Your task to perform on an android device: read, delete, or share a saved page in the chrome app Image 0: 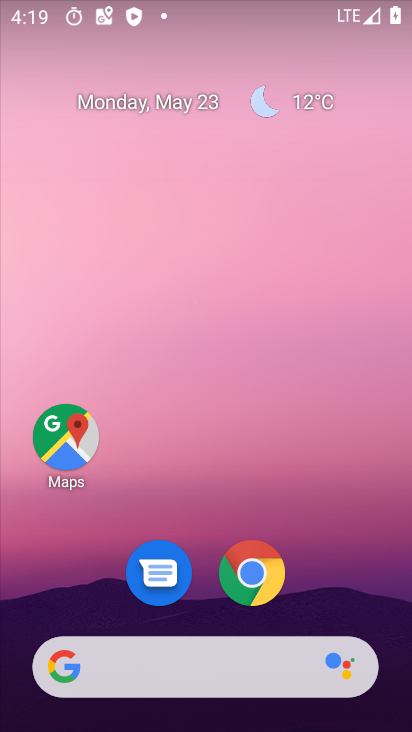
Step 0: press home button
Your task to perform on an android device: read, delete, or share a saved page in the chrome app Image 1: 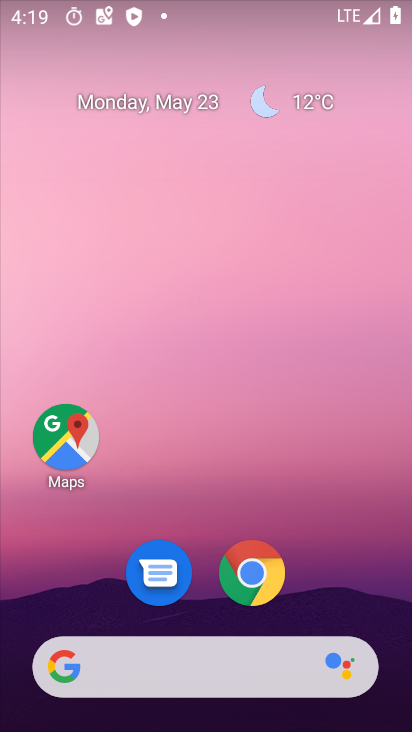
Step 1: click (260, 576)
Your task to perform on an android device: read, delete, or share a saved page in the chrome app Image 2: 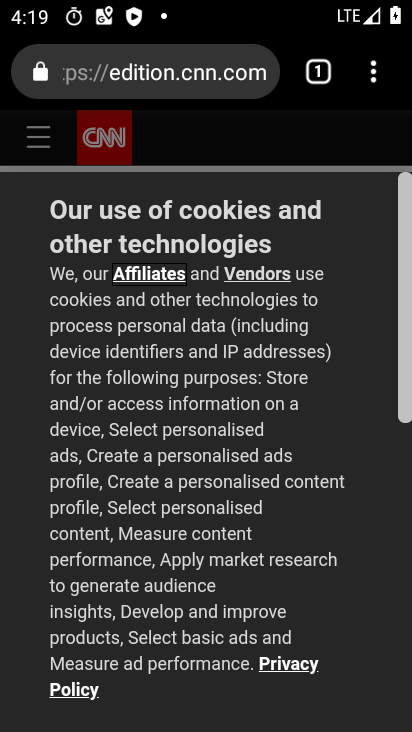
Step 2: click (327, 72)
Your task to perform on an android device: read, delete, or share a saved page in the chrome app Image 3: 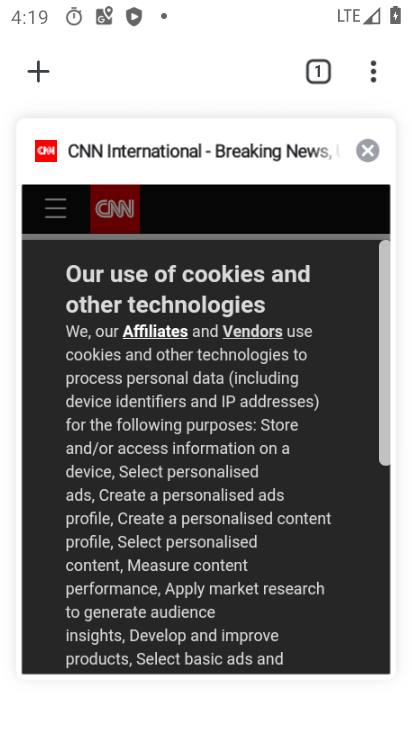
Step 3: click (371, 150)
Your task to perform on an android device: read, delete, or share a saved page in the chrome app Image 4: 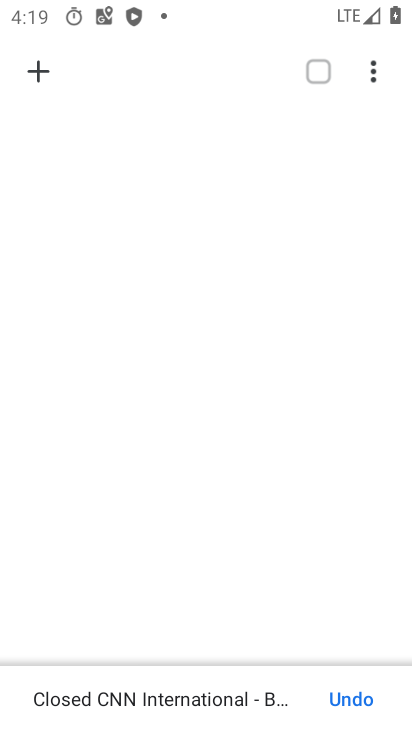
Step 4: click (27, 78)
Your task to perform on an android device: read, delete, or share a saved page in the chrome app Image 5: 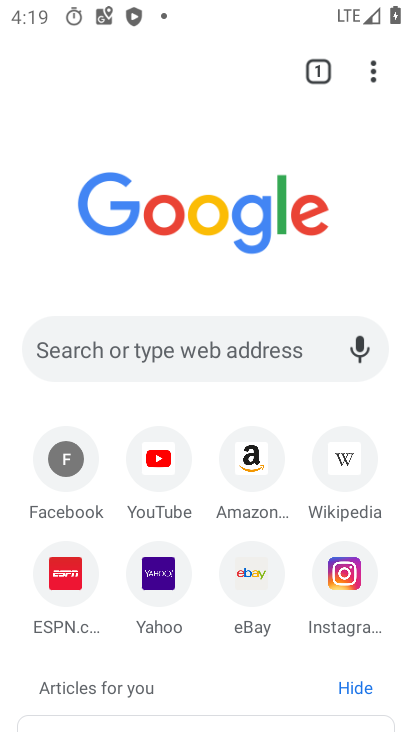
Step 5: click (45, 461)
Your task to perform on an android device: read, delete, or share a saved page in the chrome app Image 6: 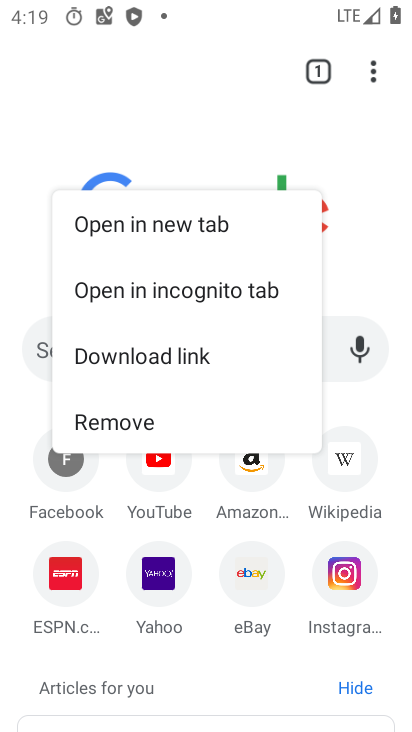
Step 6: click (119, 425)
Your task to perform on an android device: read, delete, or share a saved page in the chrome app Image 7: 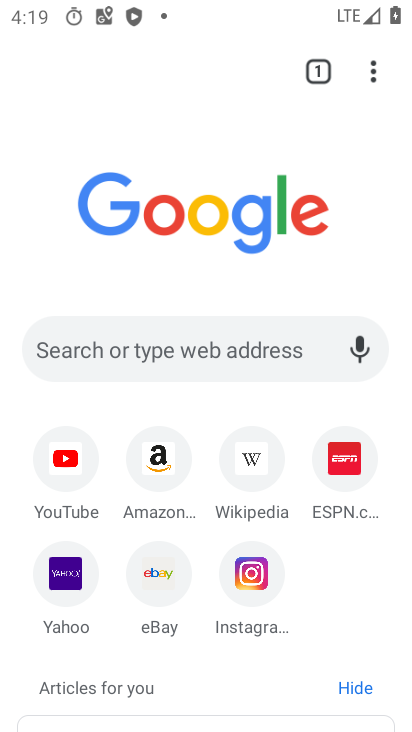
Step 7: task complete